Your task to perform on an android device: delete the emails in spam in the gmail app Image 0: 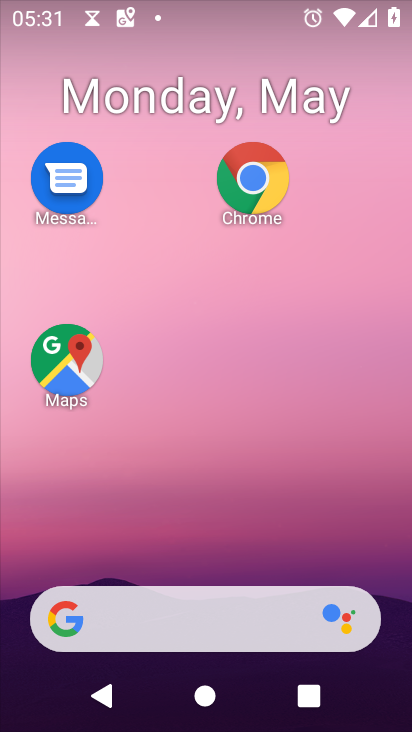
Step 0: drag from (155, 536) to (171, 15)
Your task to perform on an android device: delete the emails in spam in the gmail app Image 1: 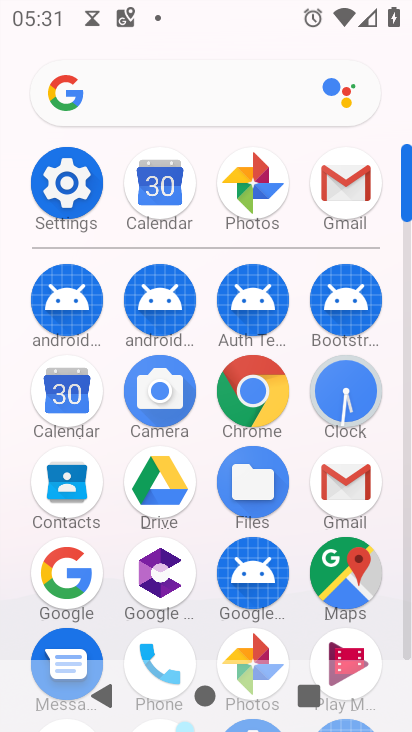
Step 1: click (362, 488)
Your task to perform on an android device: delete the emails in spam in the gmail app Image 2: 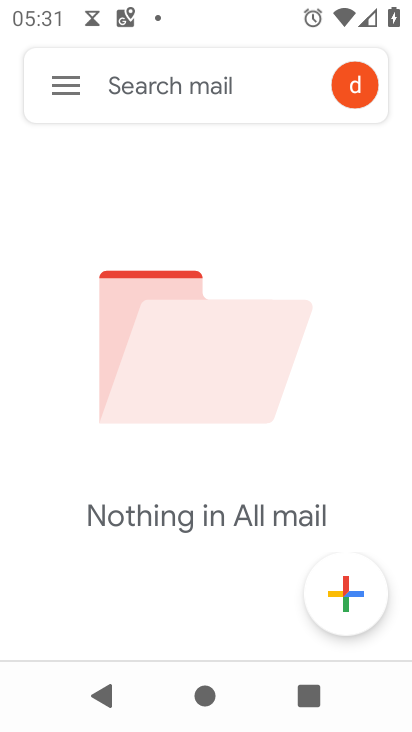
Step 2: click (65, 93)
Your task to perform on an android device: delete the emails in spam in the gmail app Image 3: 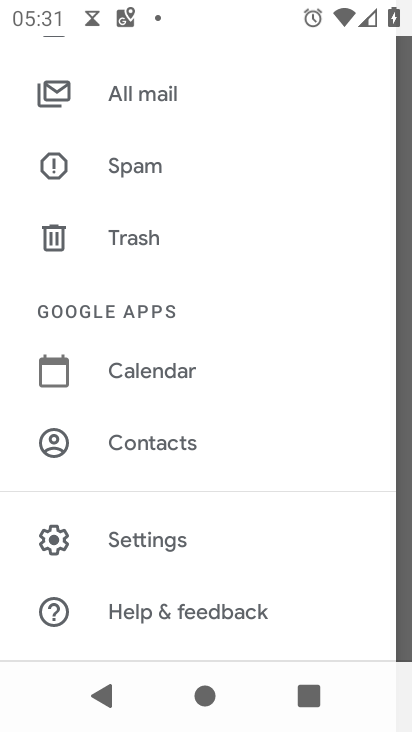
Step 3: click (124, 93)
Your task to perform on an android device: delete the emails in spam in the gmail app Image 4: 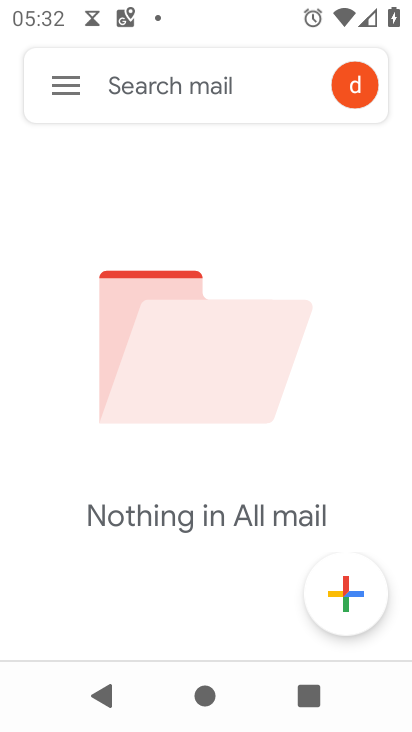
Step 4: task complete